Your task to perform on an android device: toggle wifi Image 0: 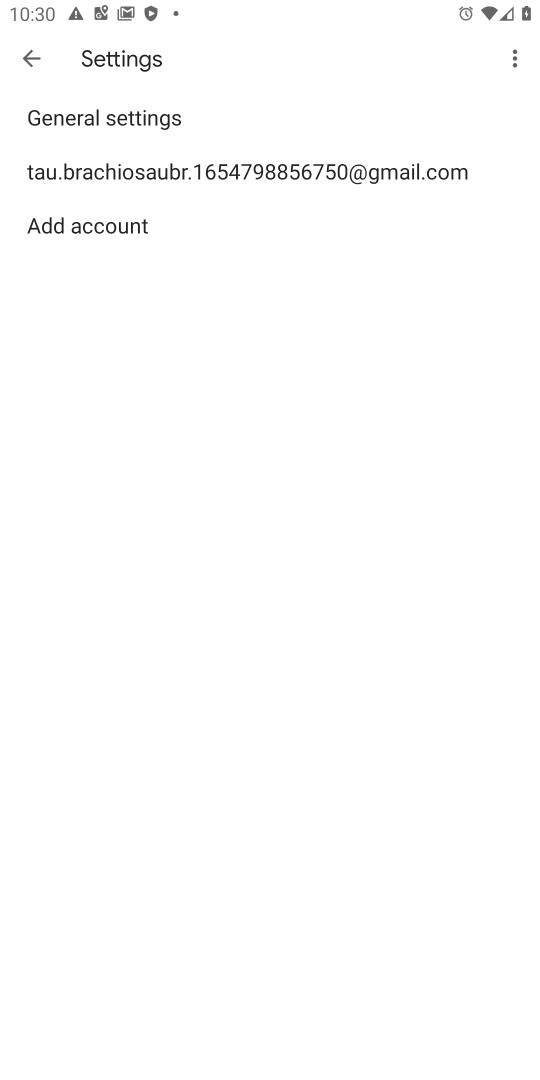
Step 0: press home button
Your task to perform on an android device: toggle wifi Image 1: 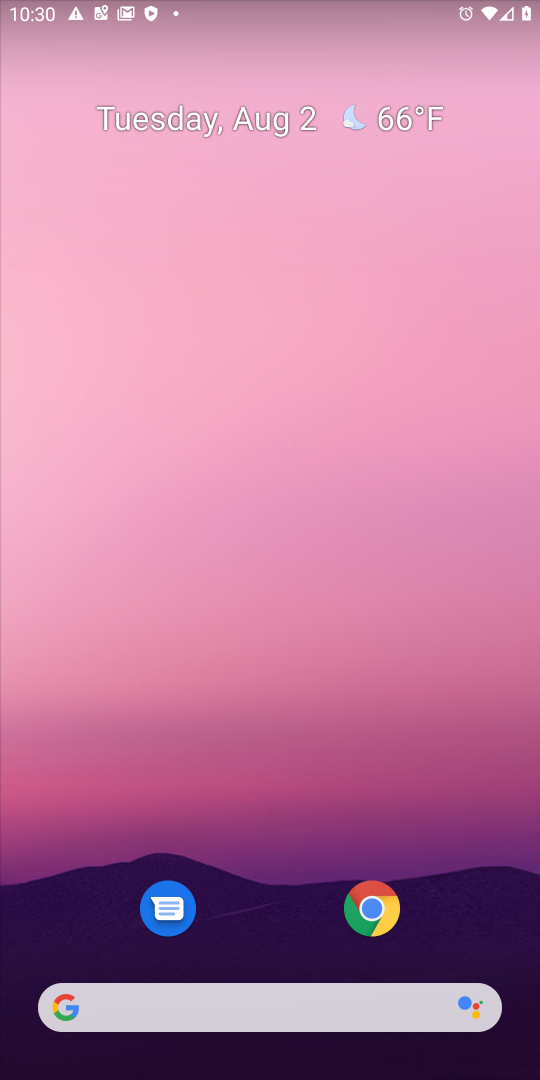
Step 1: drag from (247, 744) to (3, 297)
Your task to perform on an android device: toggle wifi Image 2: 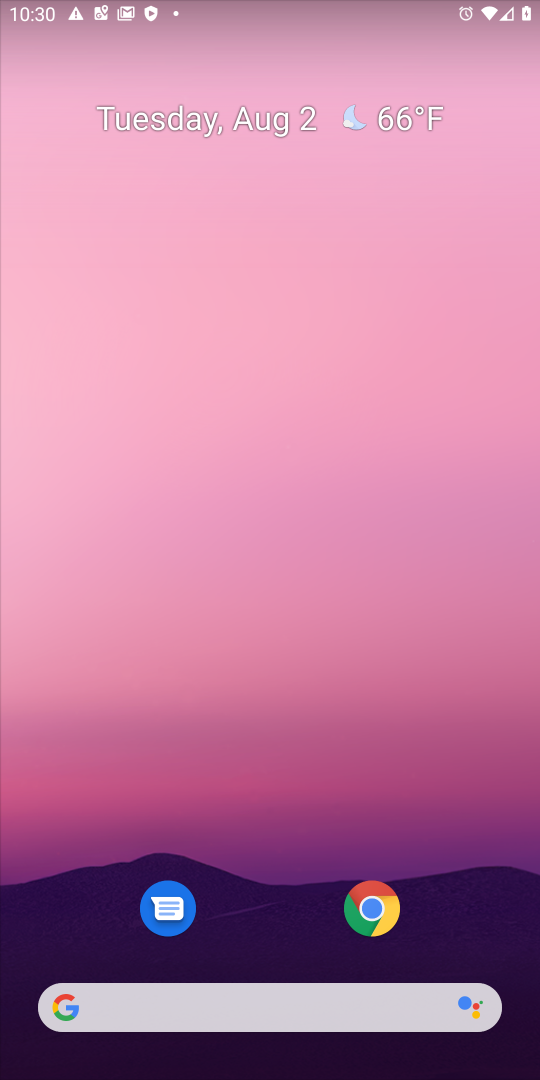
Step 2: drag from (239, 642) to (335, 23)
Your task to perform on an android device: toggle wifi Image 3: 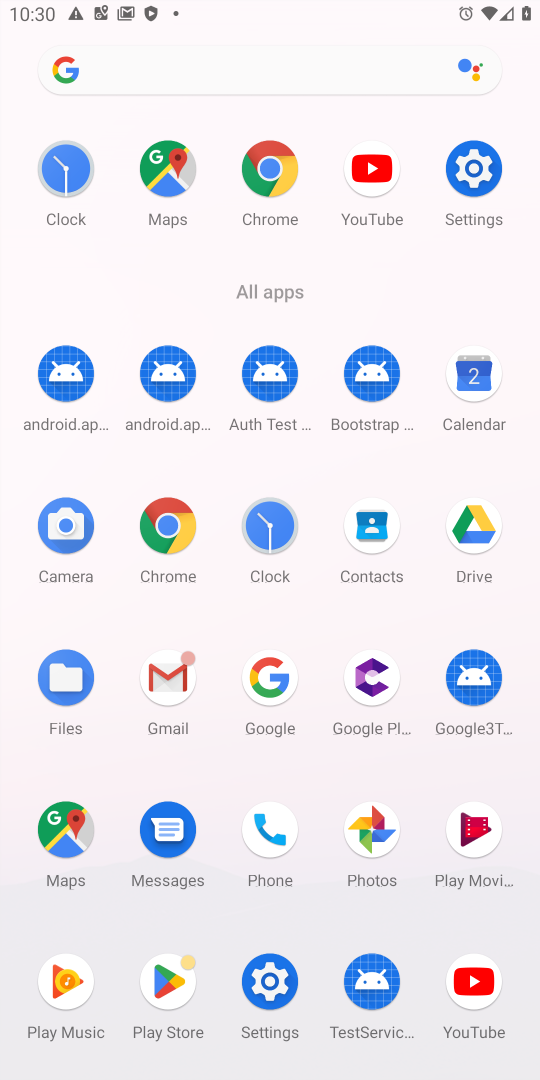
Step 3: click (457, 183)
Your task to perform on an android device: toggle wifi Image 4: 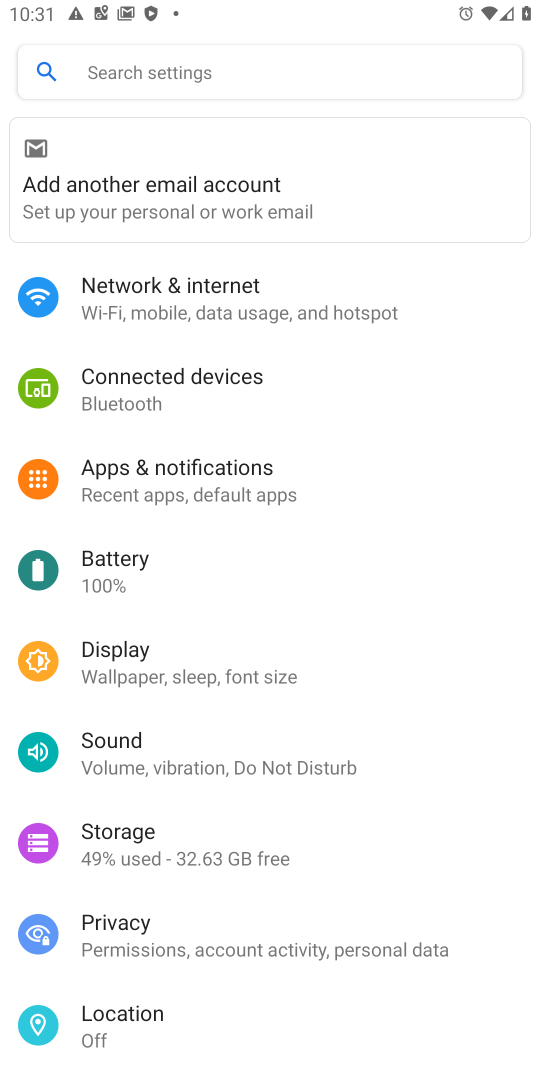
Step 4: click (271, 313)
Your task to perform on an android device: toggle wifi Image 5: 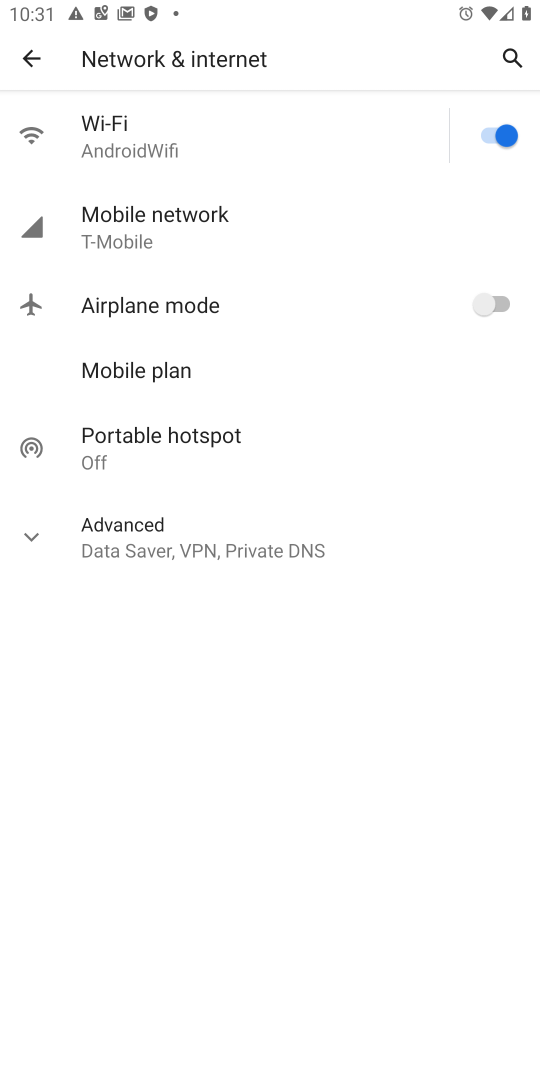
Step 5: click (514, 138)
Your task to perform on an android device: toggle wifi Image 6: 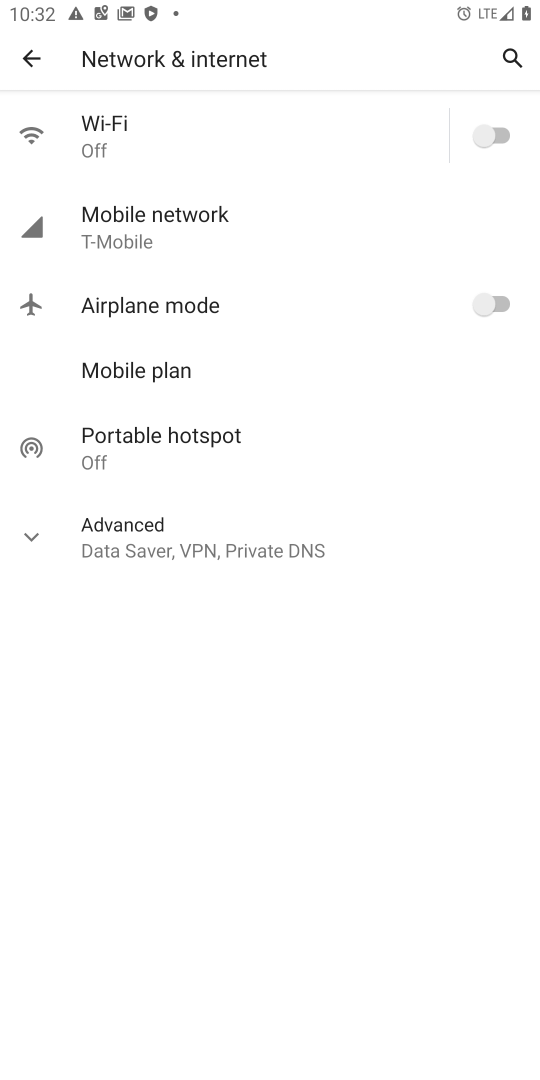
Step 6: task complete